Your task to perform on an android device: find photos in the google photos app Image 0: 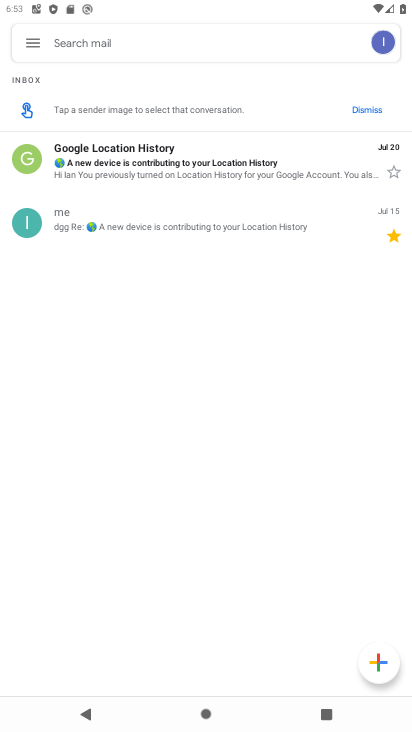
Step 0: press home button
Your task to perform on an android device: find photos in the google photos app Image 1: 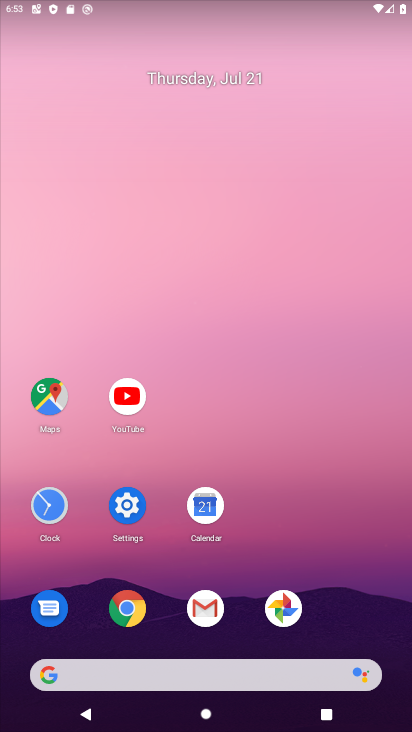
Step 1: click (274, 604)
Your task to perform on an android device: find photos in the google photos app Image 2: 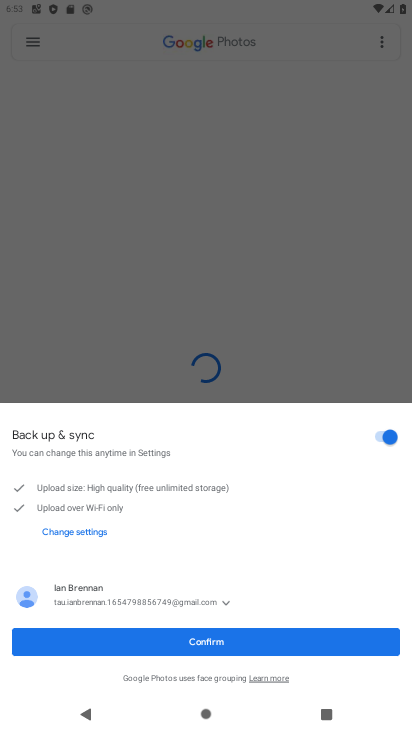
Step 2: click (208, 646)
Your task to perform on an android device: find photos in the google photos app Image 3: 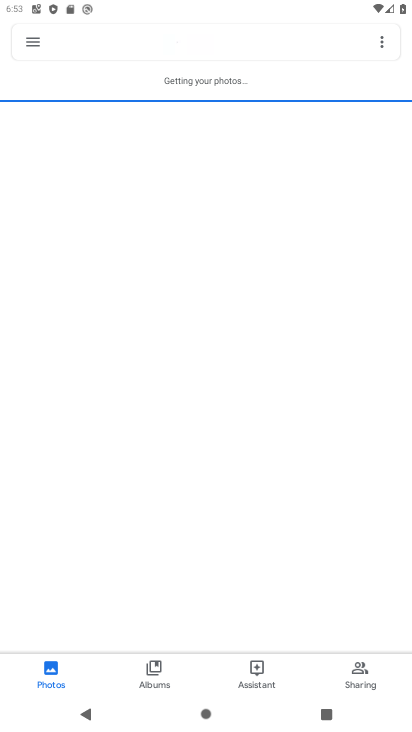
Step 3: click (97, 39)
Your task to perform on an android device: find photos in the google photos app Image 4: 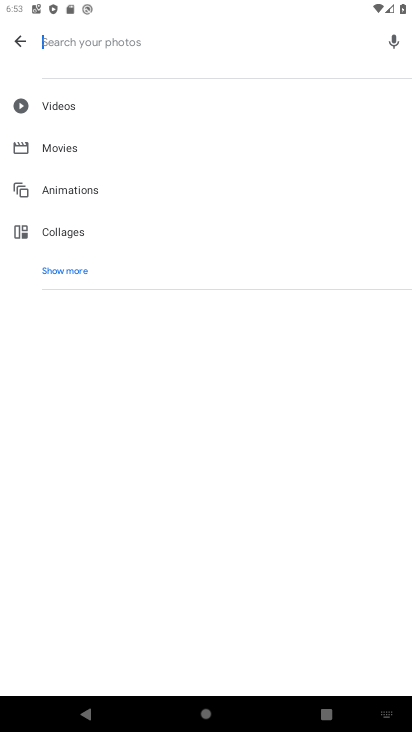
Step 4: task complete